Your task to perform on an android device: check android version Image 0: 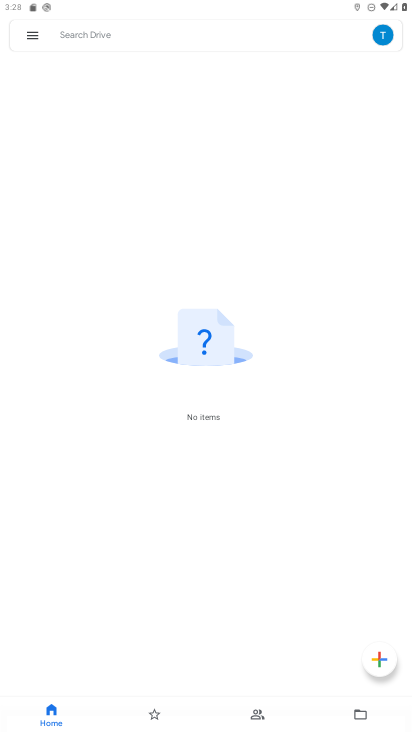
Step 0: press home button
Your task to perform on an android device: check android version Image 1: 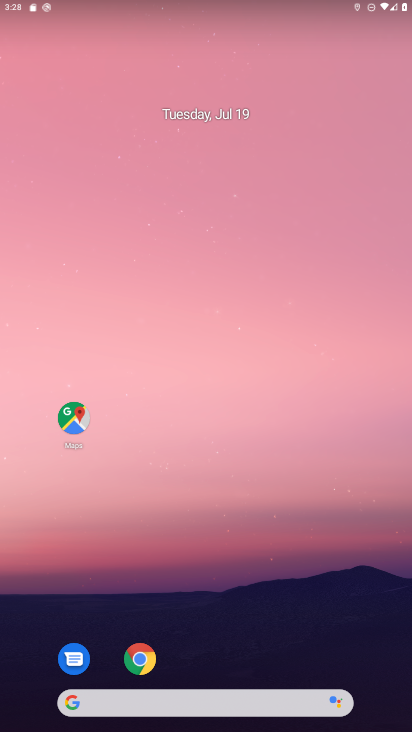
Step 1: drag from (229, 632) to (262, 245)
Your task to perform on an android device: check android version Image 2: 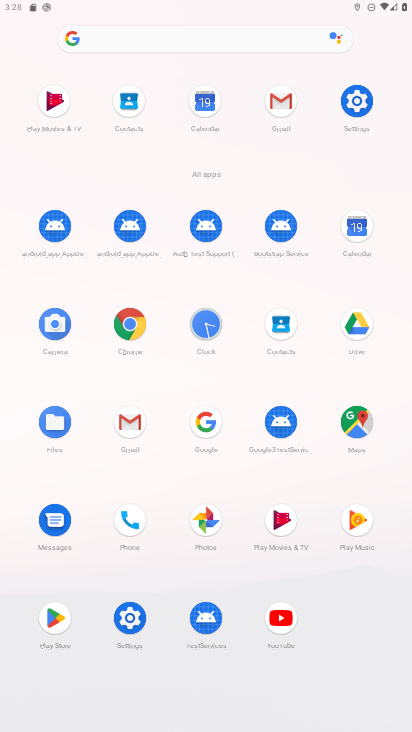
Step 2: click (128, 617)
Your task to perform on an android device: check android version Image 3: 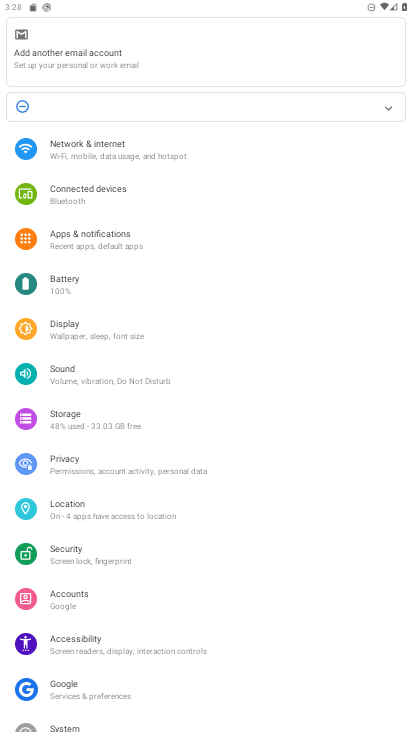
Step 3: drag from (124, 637) to (116, 253)
Your task to perform on an android device: check android version Image 4: 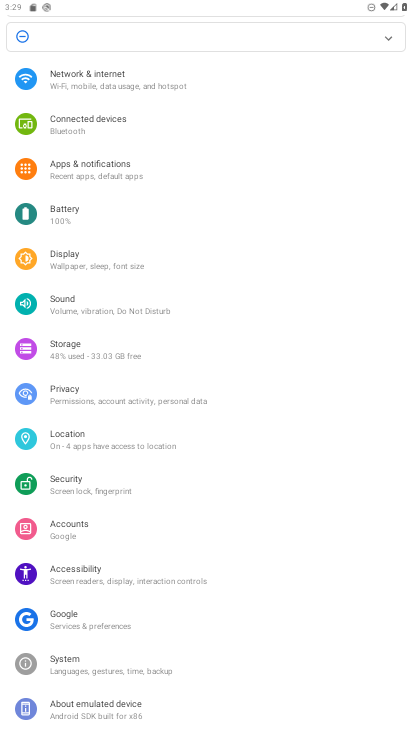
Step 4: click (89, 700)
Your task to perform on an android device: check android version Image 5: 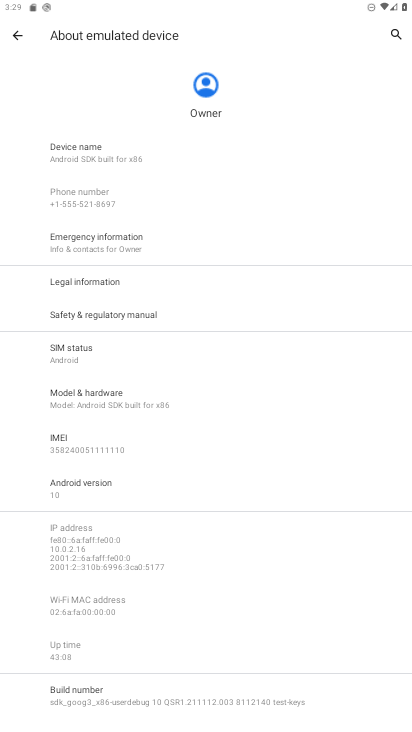
Step 5: click (113, 499)
Your task to perform on an android device: check android version Image 6: 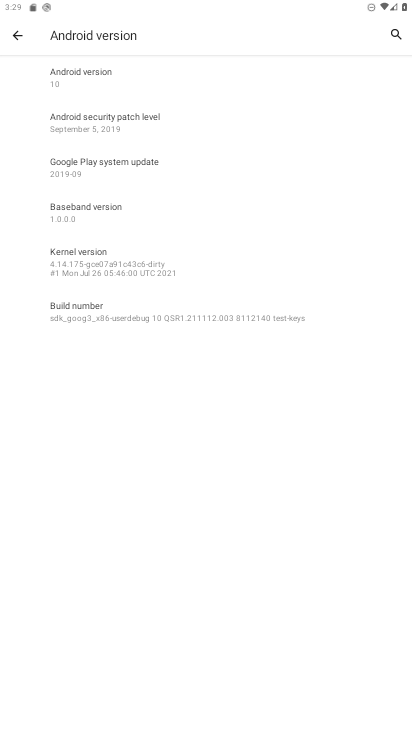
Step 6: click (199, 82)
Your task to perform on an android device: check android version Image 7: 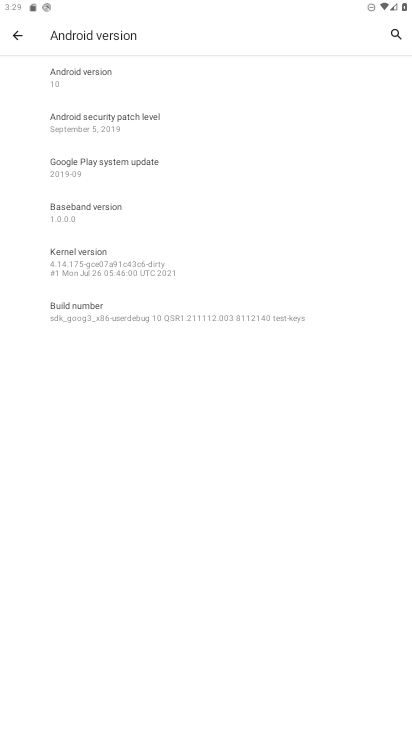
Step 7: task complete